Your task to perform on an android device: turn off picture-in-picture Image 0: 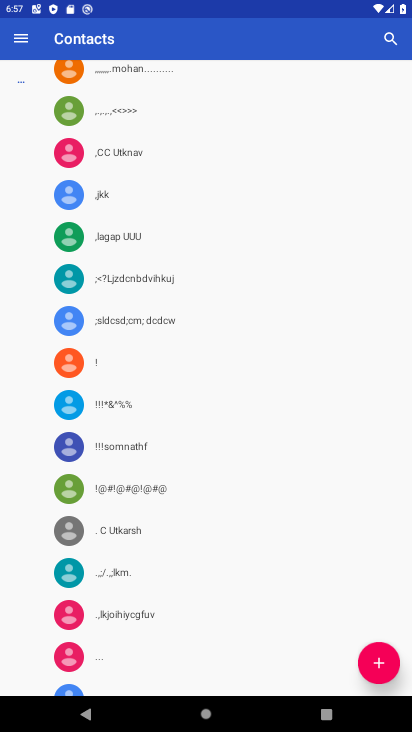
Step 0: press home button
Your task to perform on an android device: turn off picture-in-picture Image 1: 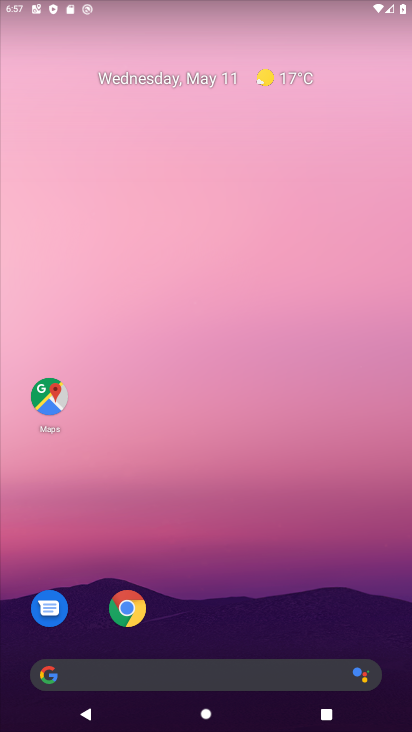
Step 1: drag from (241, 585) to (244, 197)
Your task to perform on an android device: turn off picture-in-picture Image 2: 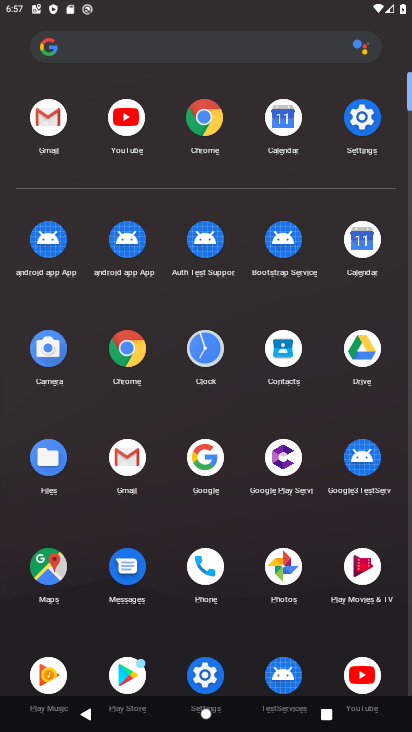
Step 2: click (345, 136)
Your task to perform on an android device: turn off picture-in-picture Image 3: 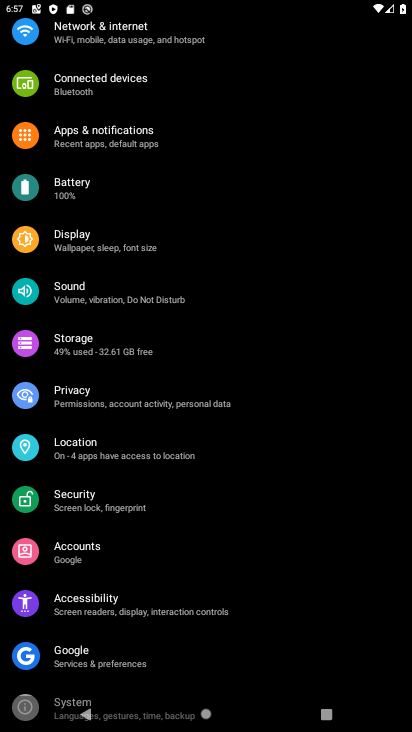
Step 3: click (181, 147)
Your task to perform on an android device: turn off picture-in-picture Image 4: 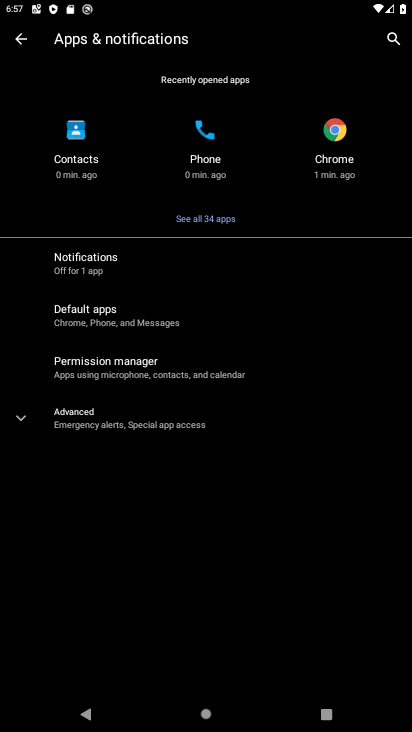
Step 4: click (215, 246)
Your task to perform on an android device: turn off picture-in-picture Image 5: 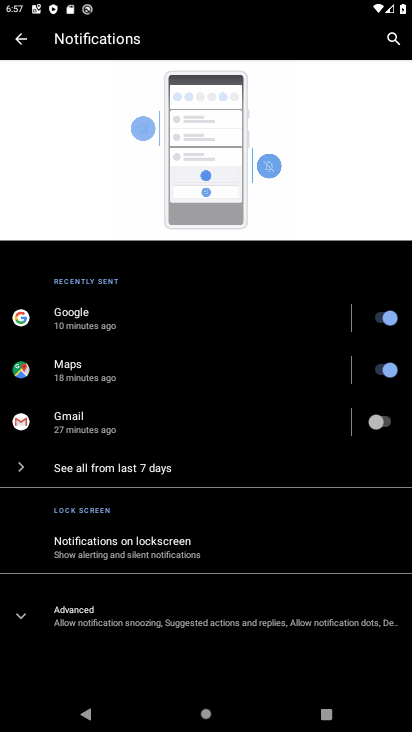
Step 5: click (200, 625)
Your task to perform on an android device: turn off picture-in-picture Image 6: 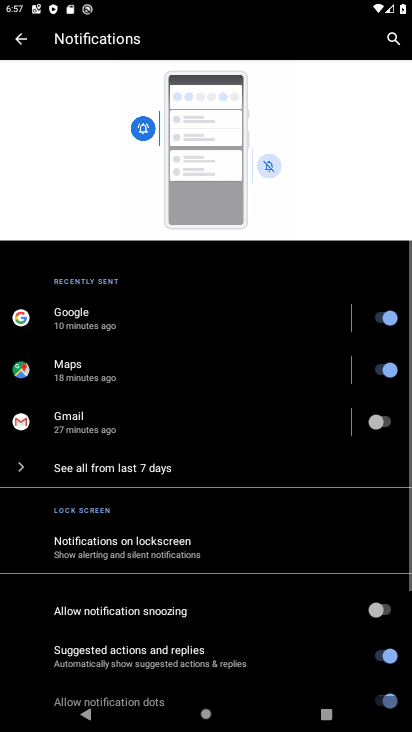
Step 6: drag from (258, 608) to (259, 275)
Your task to perform on an android device: turn off picture-in-picture Image 7: 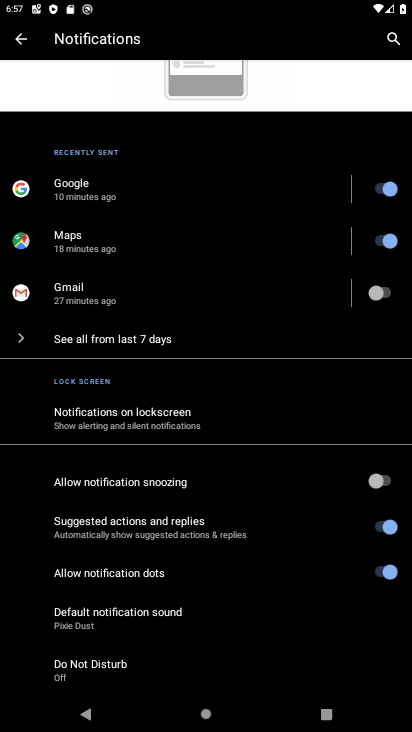
Step 7: drag from (238, 641) to (257, 332)
Your task to perform on an android device: turn off picture-in-picture Image 8: 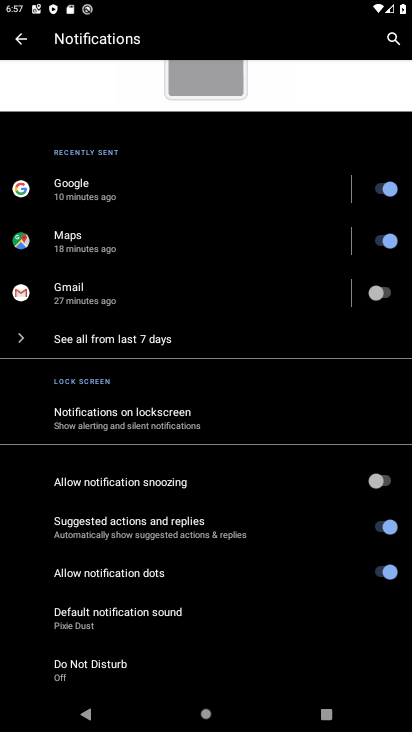
Step 8: click (120, 336)
Your task to perform on an android device: turn off picture-in-picture Image 9: 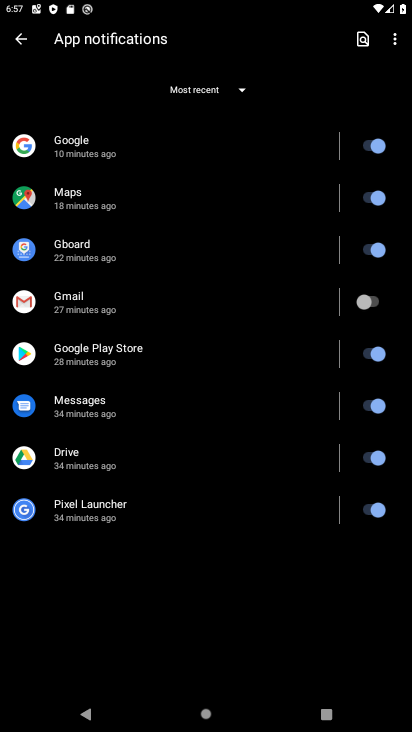
Step 9: drag from (185, 570) to (203, 487)
Your task to perform on an android device: turn off picture-in-picture Image 10: 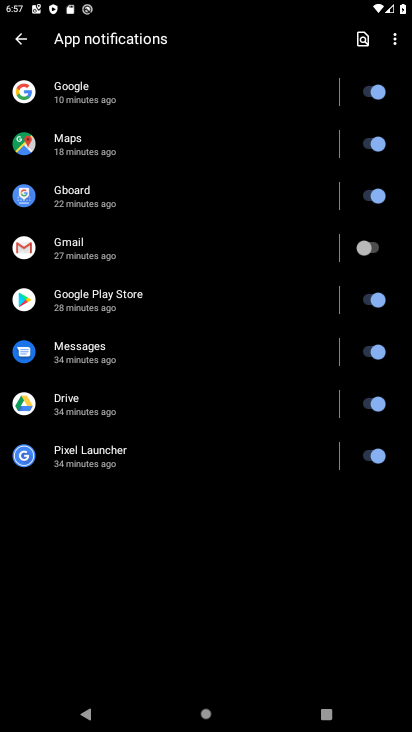
Step 10: click (19, 43)
Your task to perform on an android device: turn off picture-in-picture Image 11: 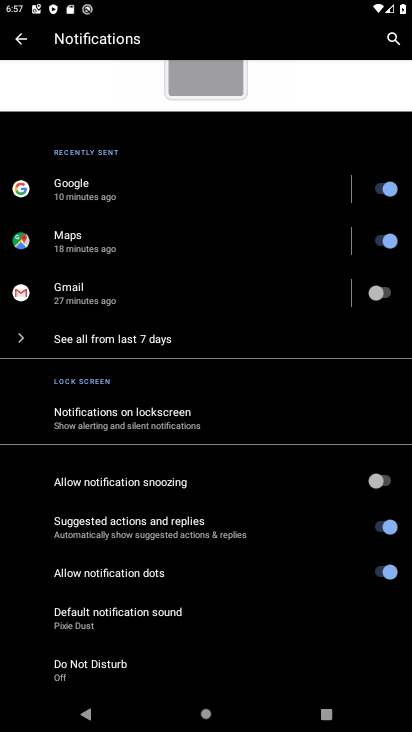
Step 11: click (19, 43)
Your task to perform on an android device: turn off picture-in-picture Image 12: 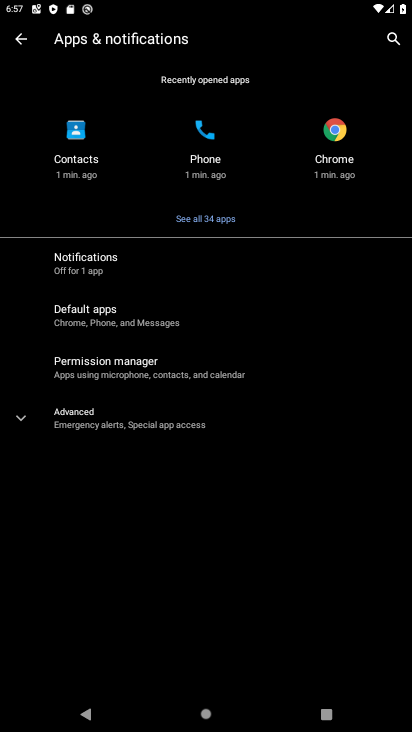
Step 12: click (110, 426)
Your task to perform on an android device: turn off picture-in-picture Image 13: 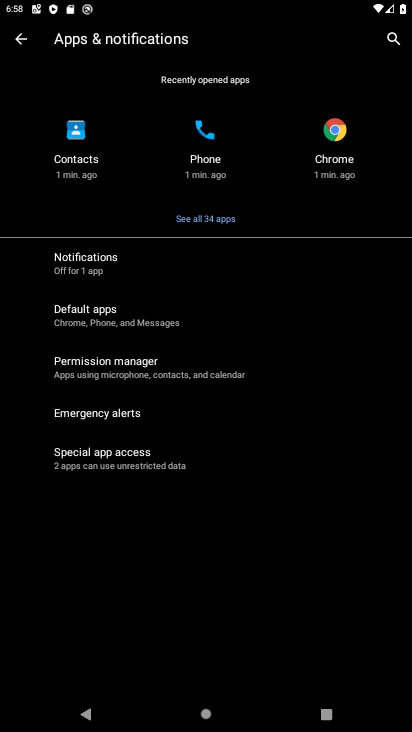
Step 13: click (195, 555)
Your task to perform on an android device: turn off picture-in-picture Image 14: 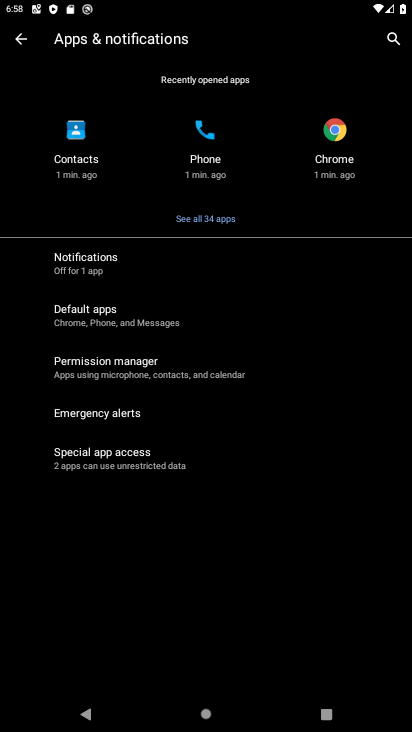
Step 14: click (197, 456)
Your task to perform on an android device: turn off picture-in-picture Image 15: 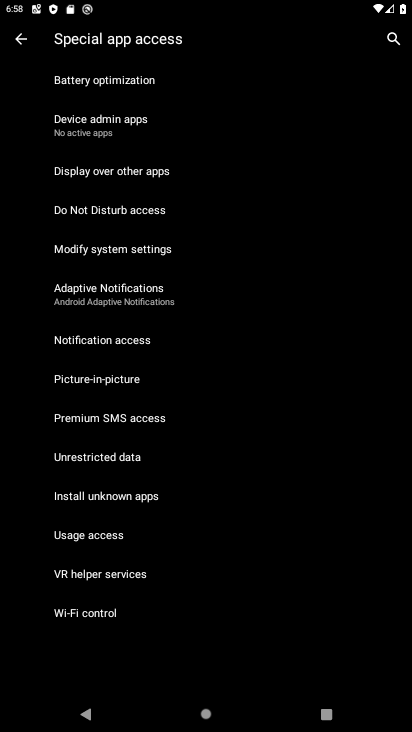
Step 15: click (177, 374)
Your task to perform on an android device: turn off picture-in-picture Image 16: 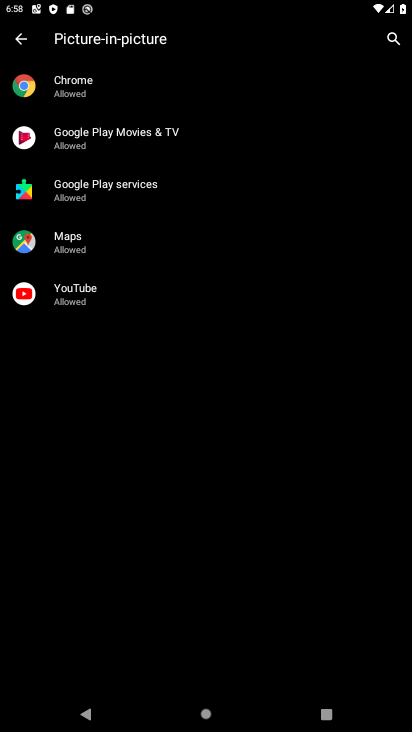
Step 16: click (282, 269)
Your task to perform on an android device: turn off picture-in-picture Image 17: 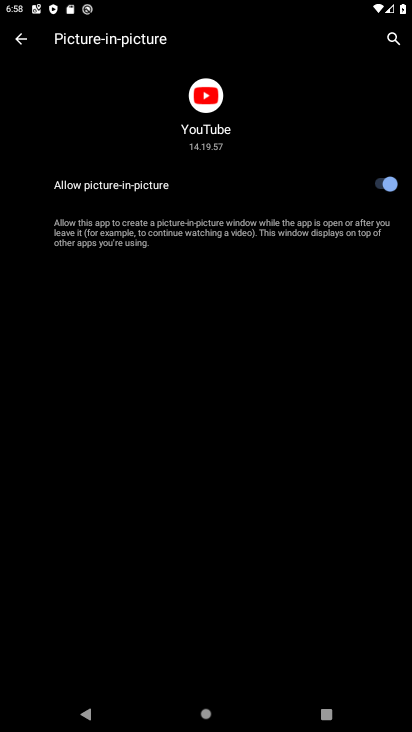
Step 17: click (375, 193)
Your task to perform on an android device: turn off picture-in-picture Image 18: 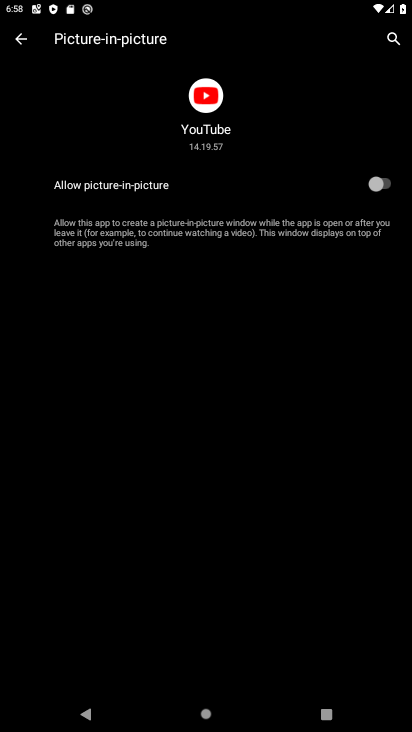
Step 18: task complete